Your task to perform on an android device: Open the Play Movies app and select the watchlist tab. Image 0: 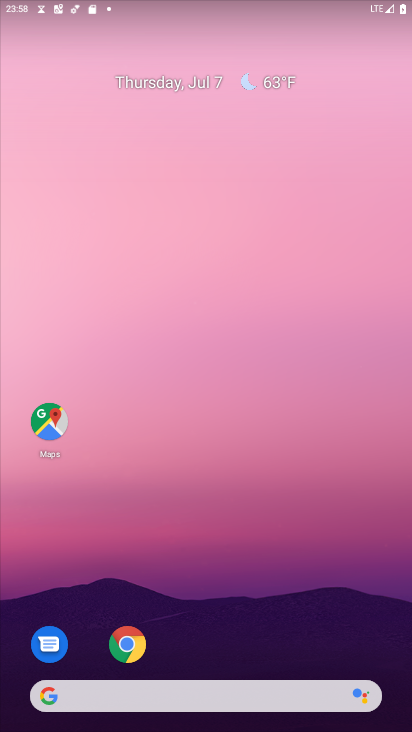
Step 0: drag from (244, 729) to (222, 580)
Your task to perform on an android device: Open the Play Movies app and select the watchlist tab. Image 1: 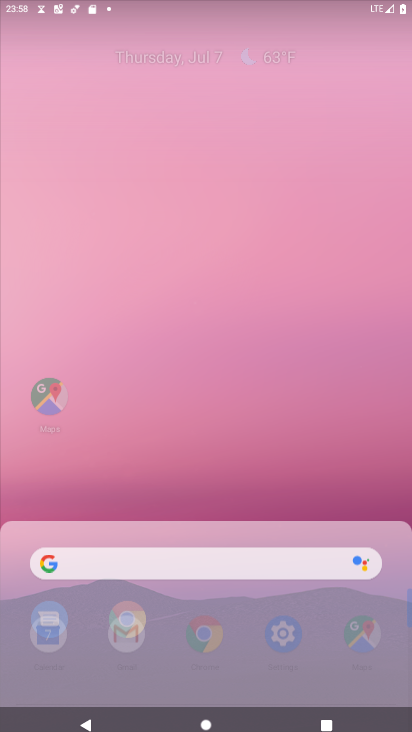
Step 1: drag from (217, 169) to (217, 135)
Your task to perform on an android device: Open the Play Movies app and select the watchlist tab. Image 2: 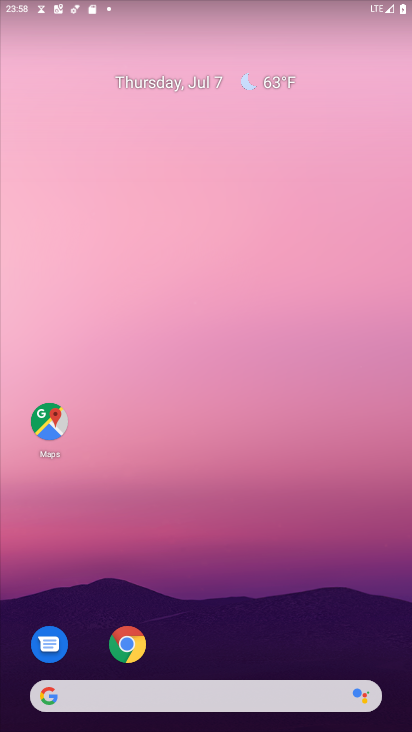
Step 2: drag from (220, 700) to (241, 89)
Your task to perform on an android device: Open the Play Movies app and select the watchlist tab. Image 3: 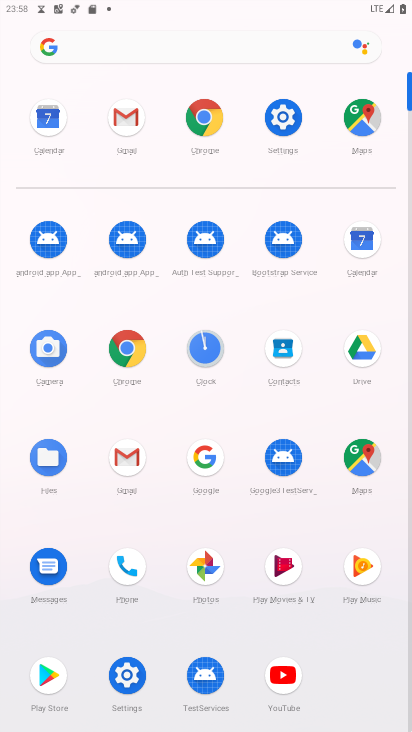
Step 3: click (285, 563)
Your task to perform on an android device: Open the Play Movies app and select the watchlist tab. Image 4: 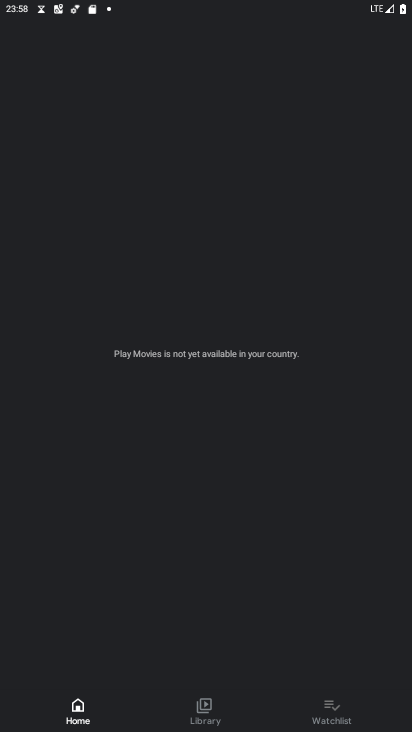
Step 4: click (331, 713)
Your task to perform on an android device: Open the Play Movies app and select the watchlist tab. Image 5: 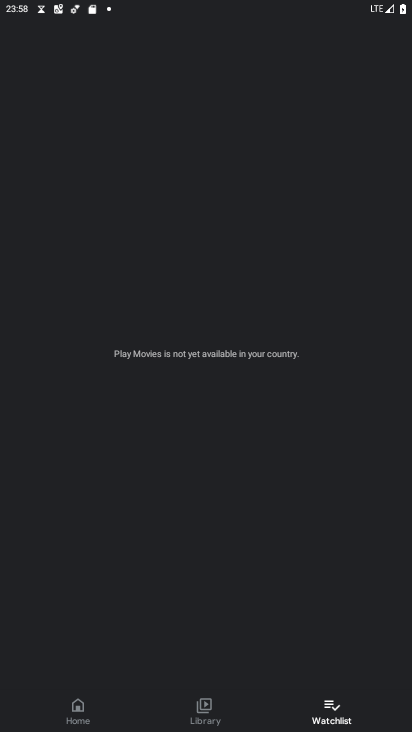
Step 5: task complete